Your task to perform on an android device: set an alarm Image 0: 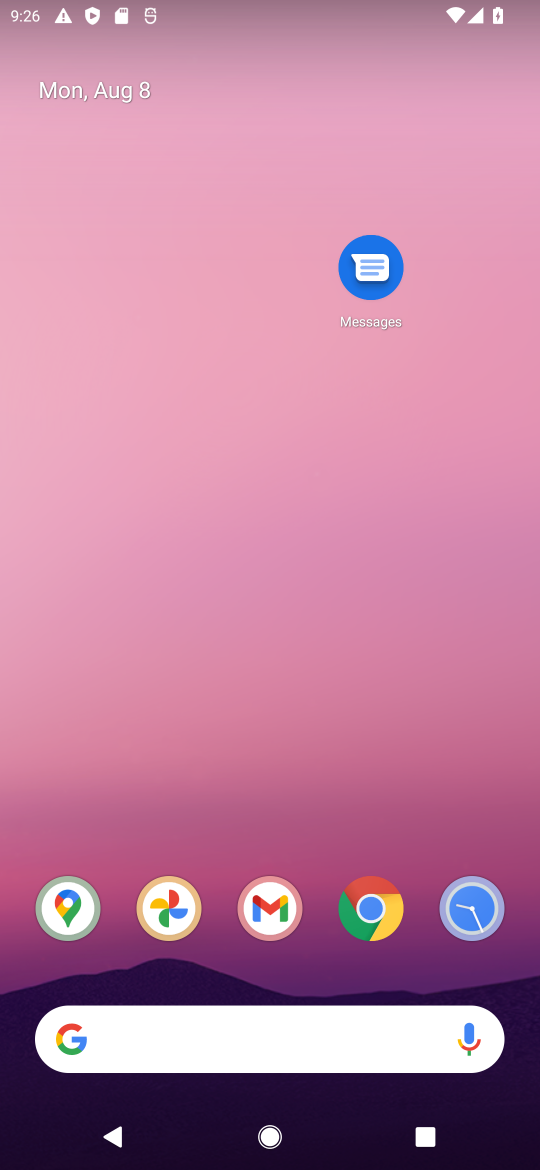
Step 0: task impossible